Your task to perform on an android device: toggle location history Image 0: 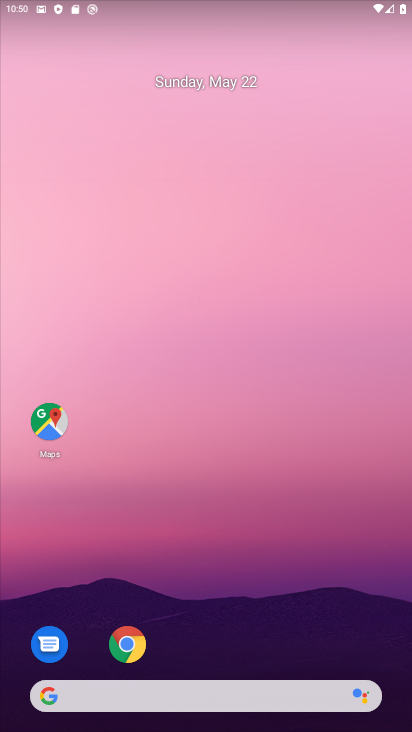
Step 0: press home button
Your task to perform on an android device: toggle location history Image 1: 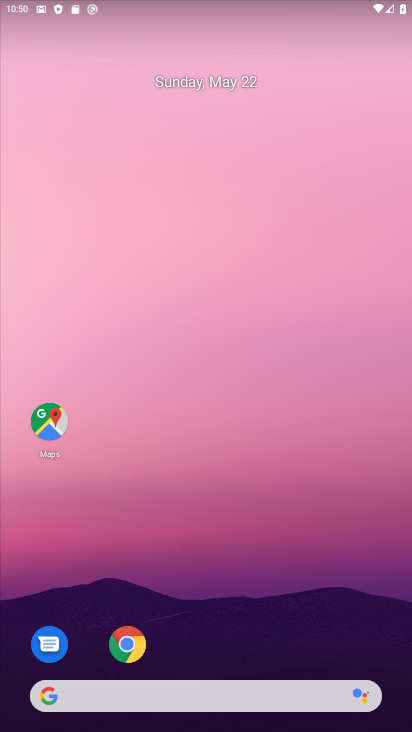
Step 1: drag from (217, 660) to (238, 169)
Your task to perform on an android device: toggle location history Image 2: 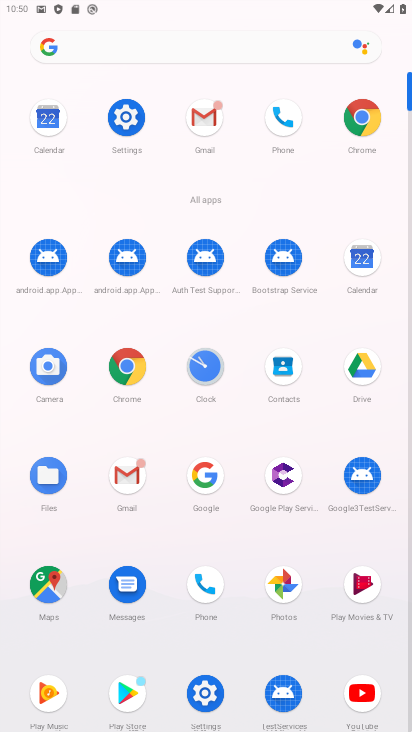
Step 2: click (126, 112)
Your task to perform on an android device: toggle location history Image 3: 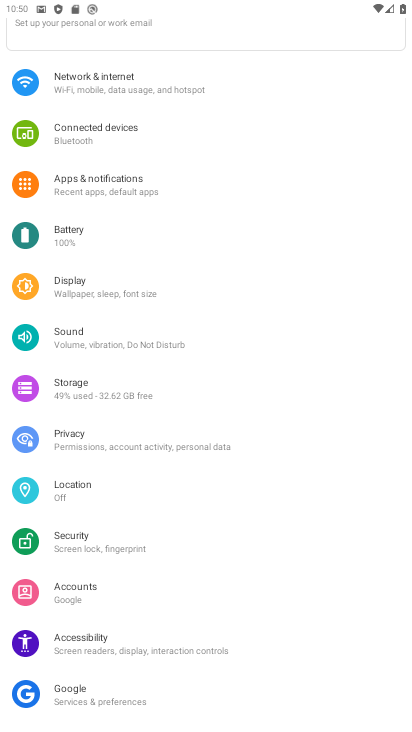
Step 3: click (81, 496)
Your task to perform on an android device: toggle location history Image 4: 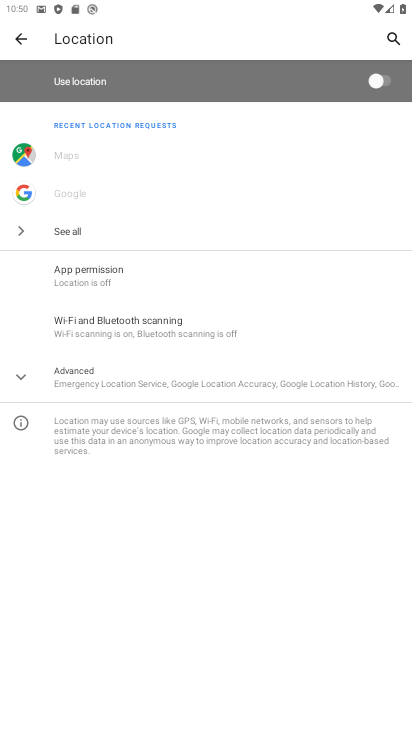
Step 4: click (18, 365)
Your task to perform on an android device: toggle location history Image 5: 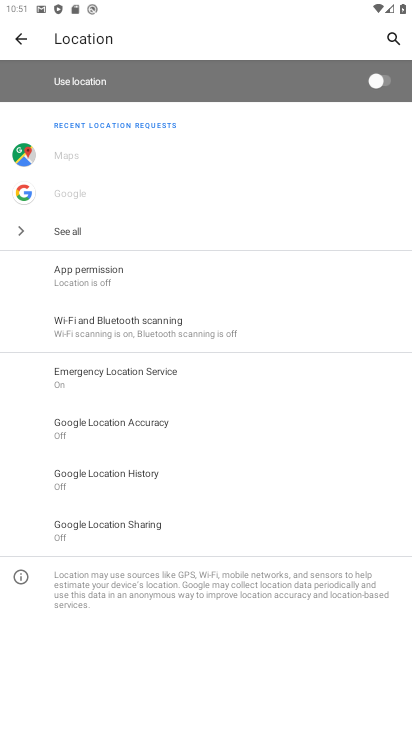
Step 5: click (137, 475)
Your task to perform on an android device: toggle location history Image 6: 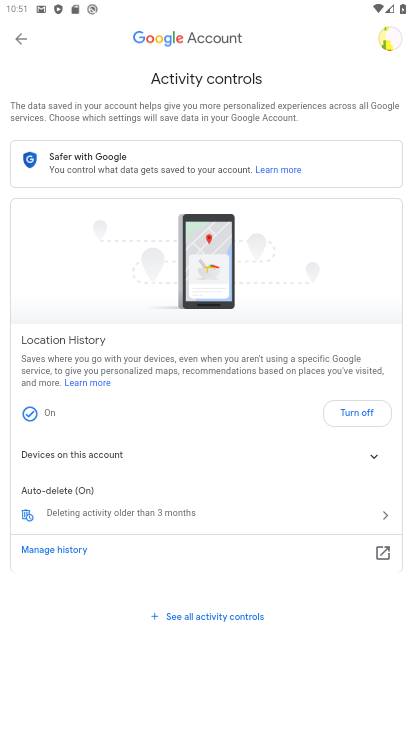
Step 6: click (366, 420)
Your task to perform on an android device: toggle location history Image 7: 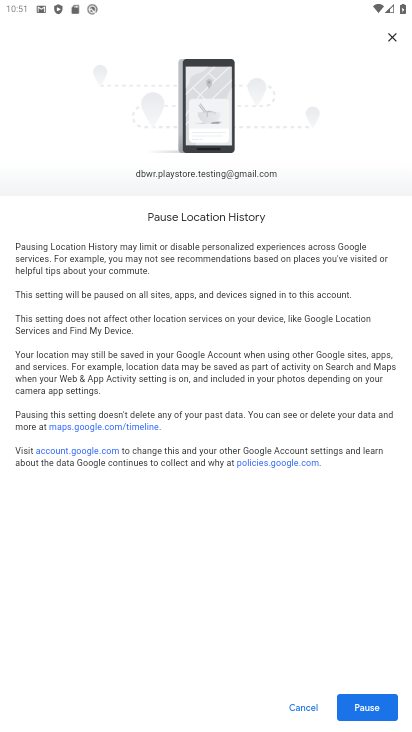
Step 7: click (366, 703)
Your task to perform on an android device: toggle location history Image 8: 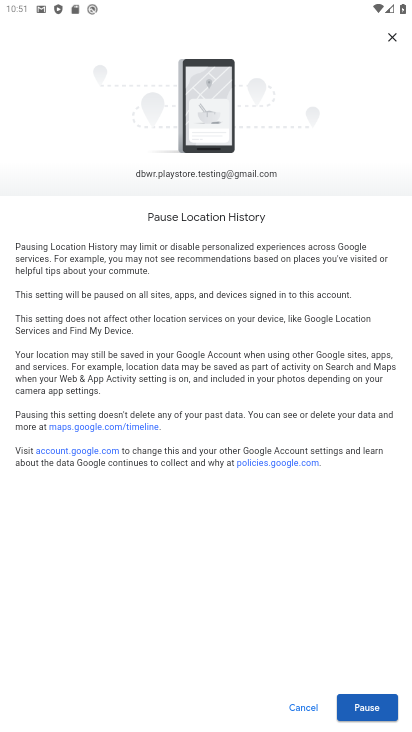
Step 8: click (366, 715)
Your task to perform on an android device: toggle location history Image 9: 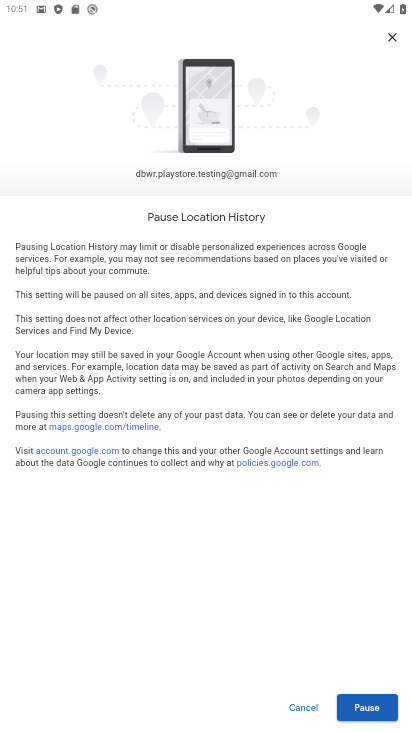
Step 9: click (380, 713)
Your task to perform on an android device: toggle location history Image 10: 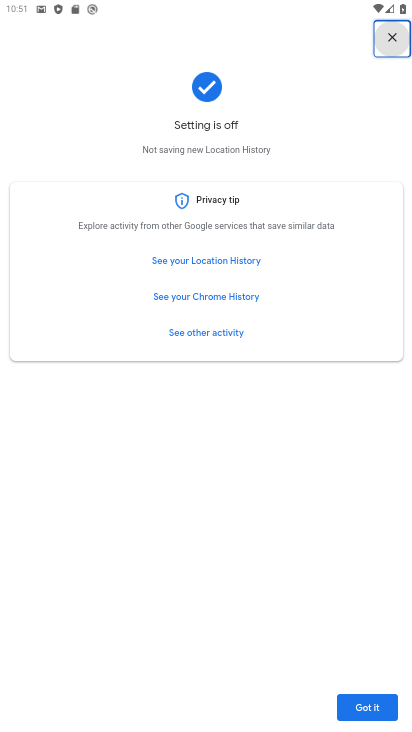
Step 10: click (371, 697)
Your task to perform on an android device: toggle location history Image 11: 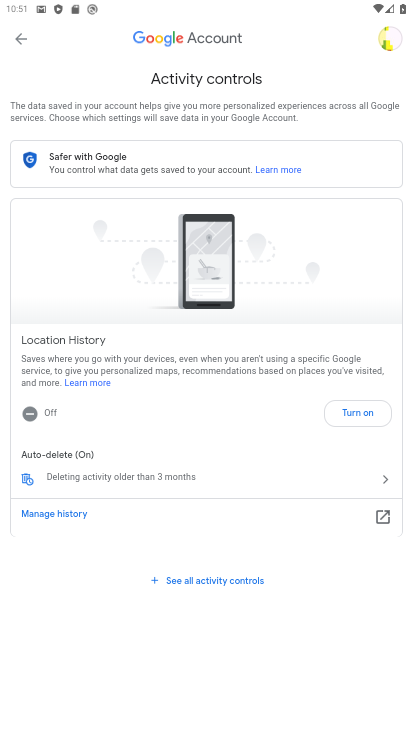
Step 11: task complete